Your task to perform on an android device: Open Chrome and go to the settings page Image 0: 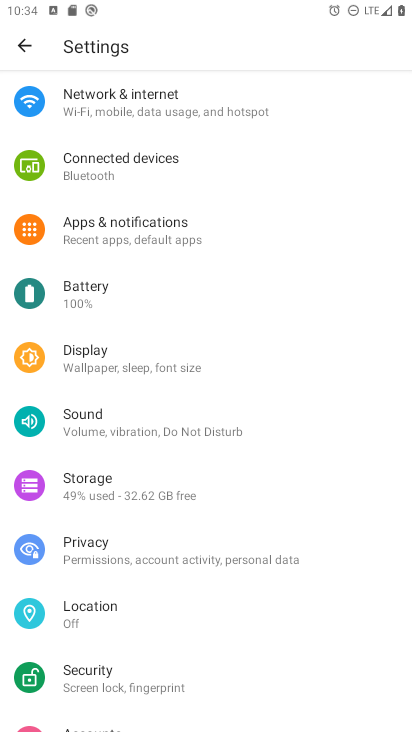
Step 0: press home button
Your task to perform on an android device: Open Chrome and go to the settings page Image 1: 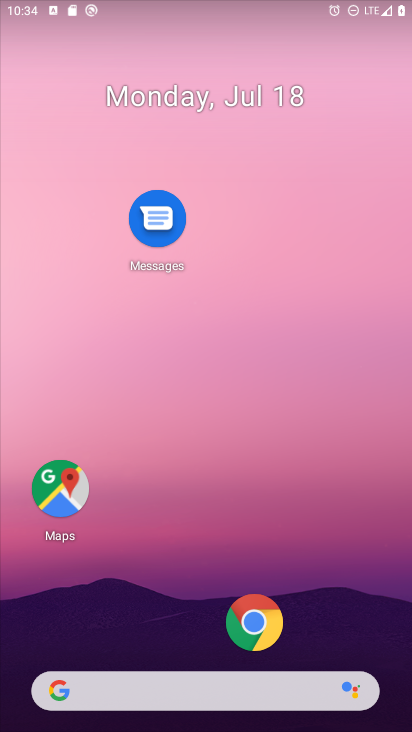
Step 1: drag from (247, 647) to (237, 86)
Your task to perform on an android device: Open Chrome and go to the settings page Image 2: 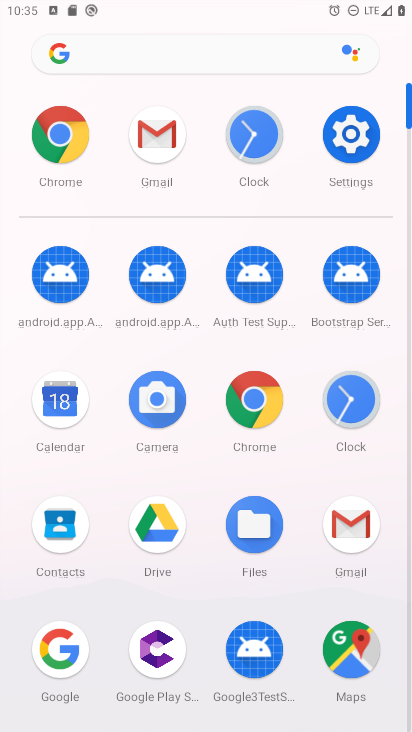
Step 2: drag from (280, 510) to (337, 94)
Your task to perform on an android device: Open Chrome and go to the settings page Image 3: 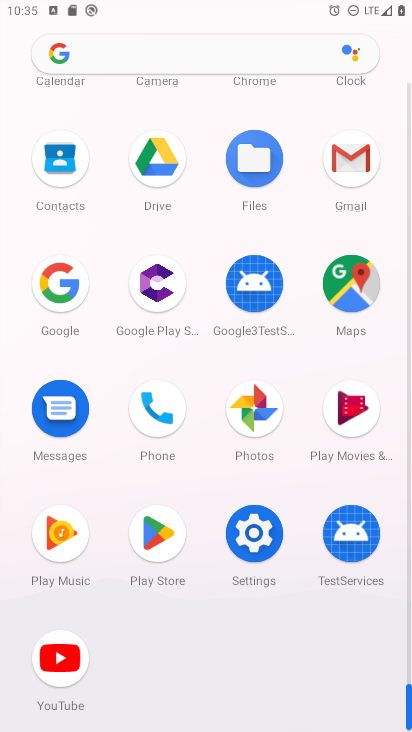
Step 3: drag from (213, 369) to (235, 716)
Your task to perform on an android device: Open Chrome and go to the settings page Image 4: 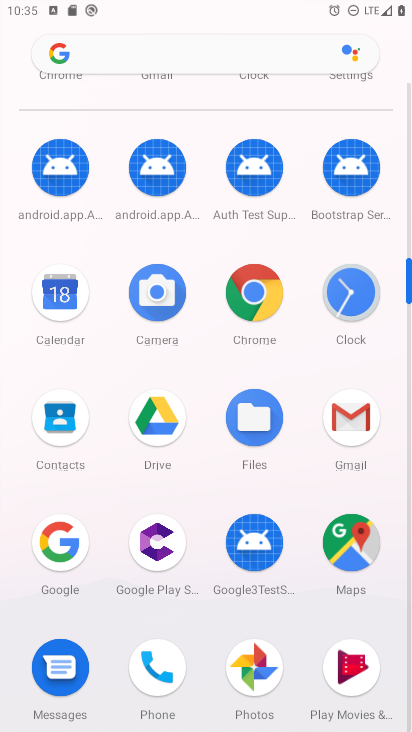
Step 4: click (256, 326)
Your task to perform on an android device: Open Chrome and go to the settings page Image 5: 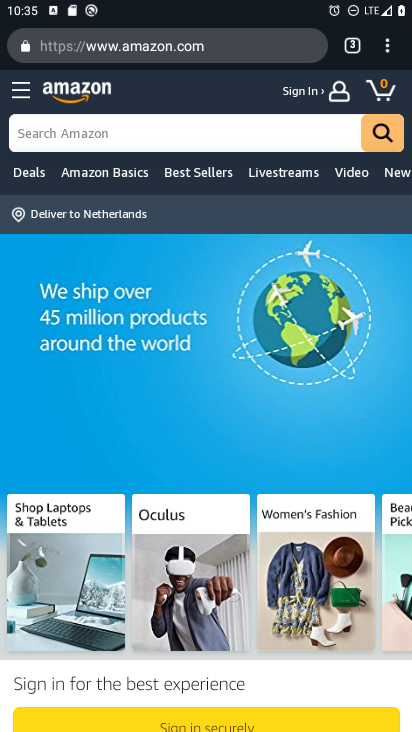
Step 5: click (393, 51)
Your task to perform on an android device: Open Chrome and go to the settings page Image 6: 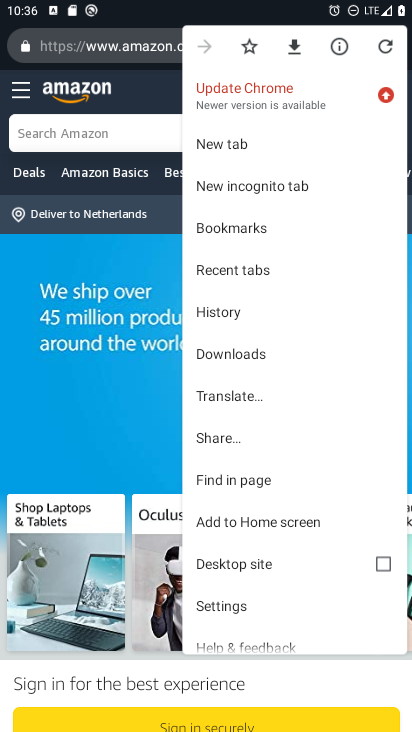
Step 6: click (248, 608)
Your task to perform on an android device: Open Chrome and go to the settings page Image 7: 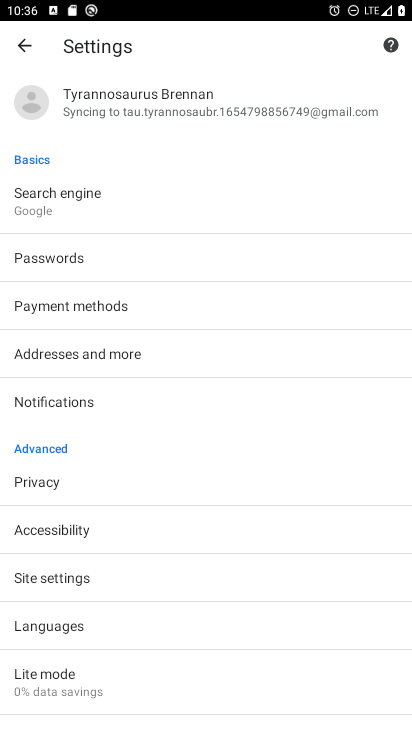
Step 7: task complete